Your task to perform on an android device: Open settings Image 0: 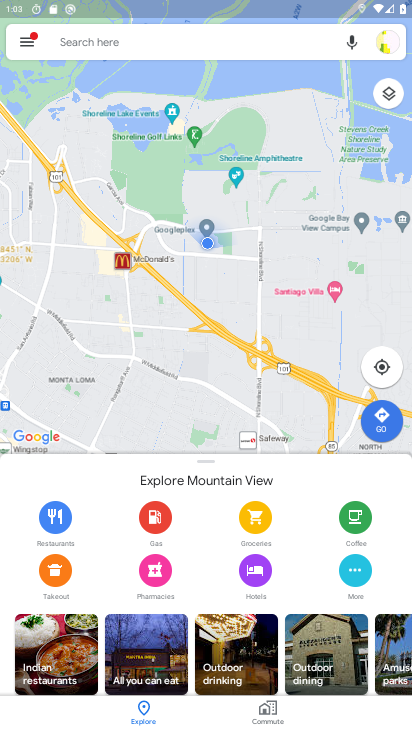
Step 0: press home button
Your task to perform on an android device: Open settings Image 1: 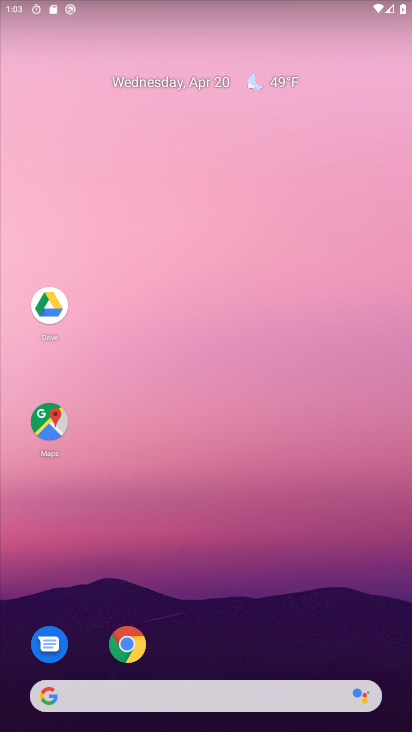
Step 1: drag from (221, 622) to (196, 60)
Your task to perform on an android device: Open settings Image 2: 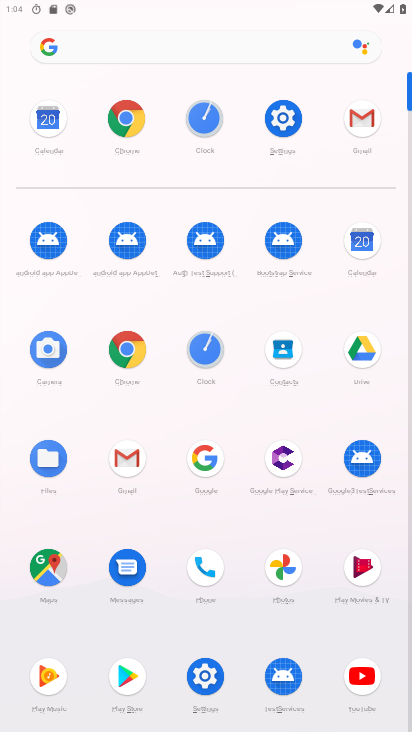
Step 2: click (283, 125)
Your task to perform on an android device: Open settings Image 3: 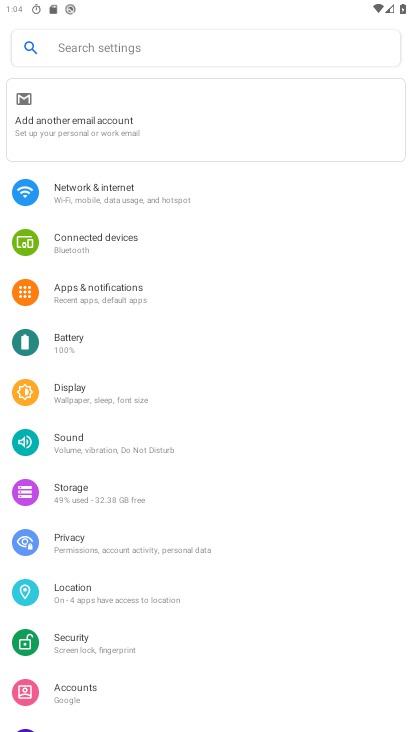
Step 3: task complete